Your task to perform on an android device: clear all cookies in the chrome app Image 0: 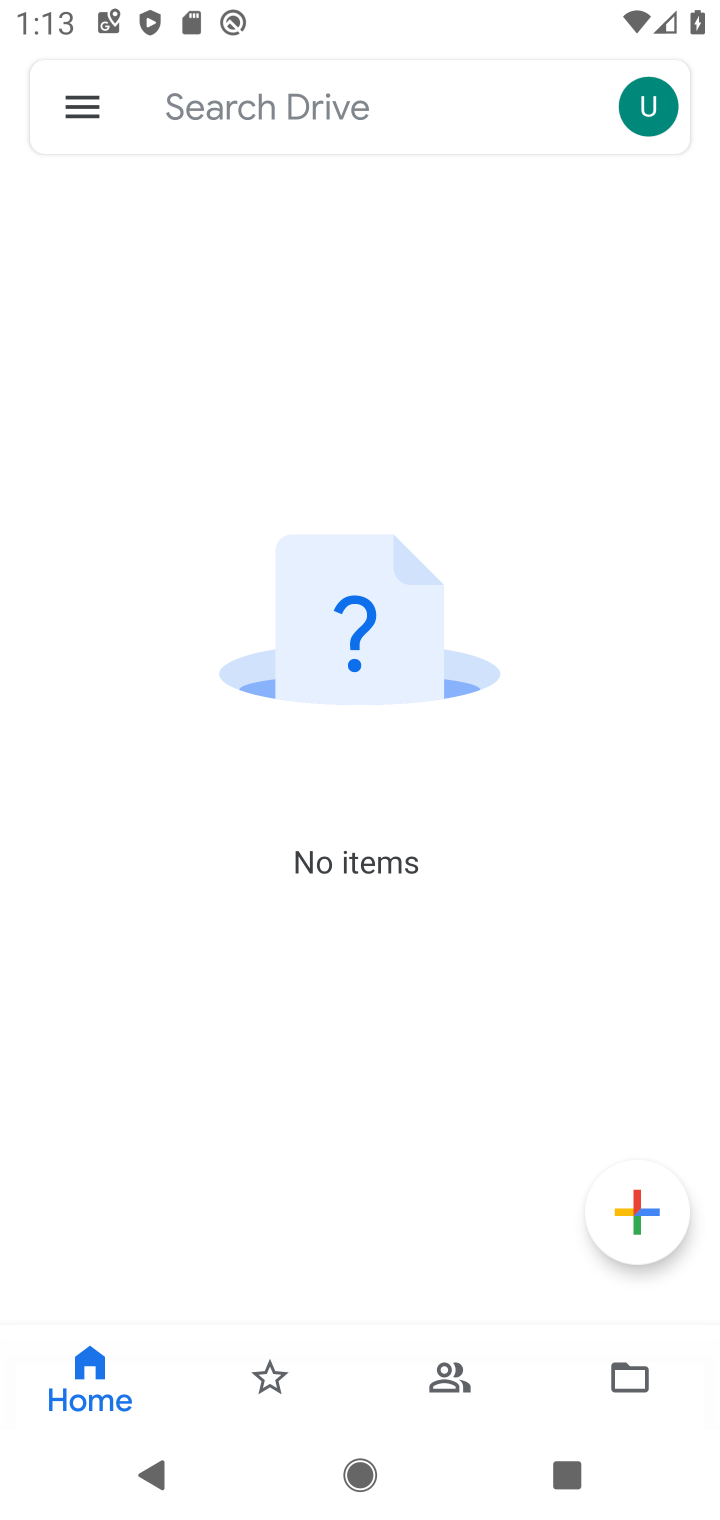
Step 0: press back button
Your task to perform on an android device: clear all cookies in the chrome app Image 1: 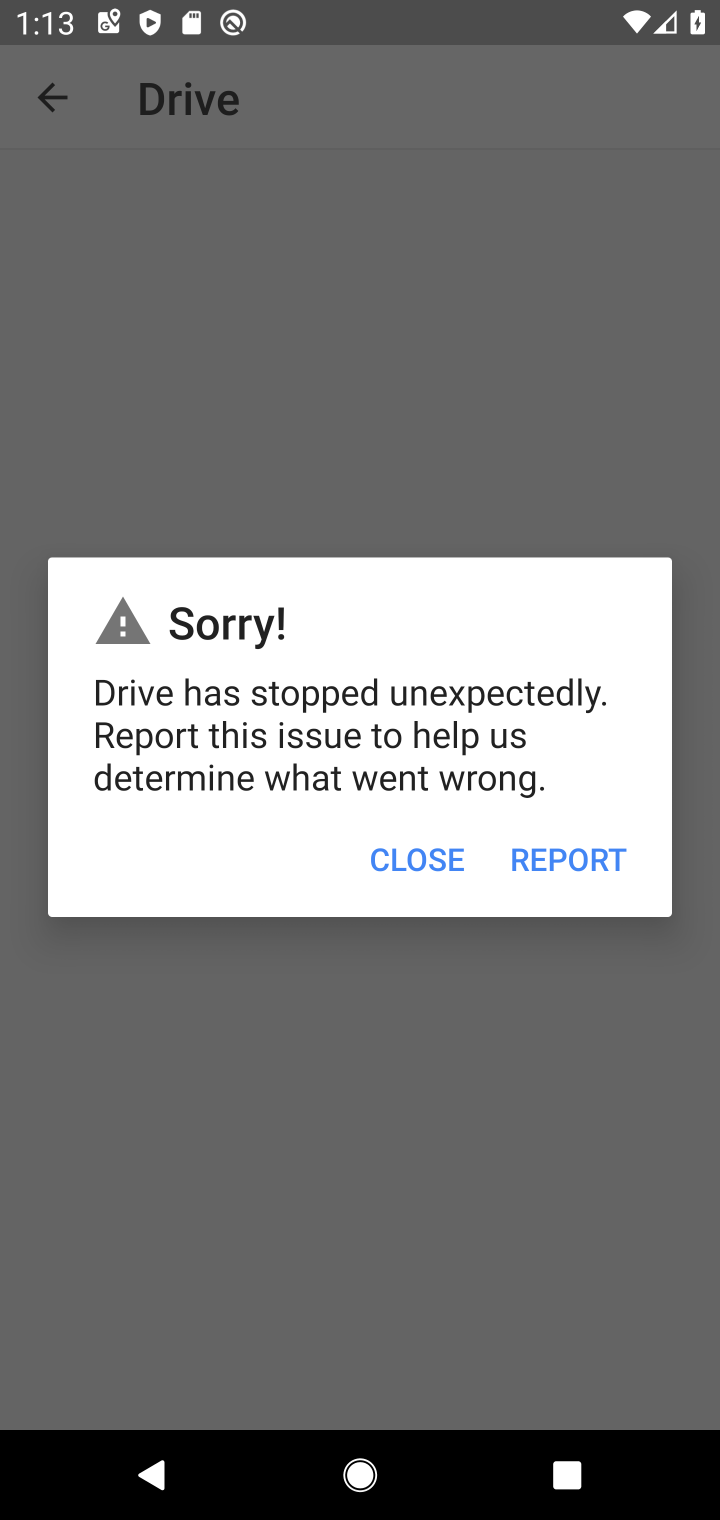
Step 1: click (415, 887)
Your task to perform on an android device: clear all cookies in the chrome app Image 2: 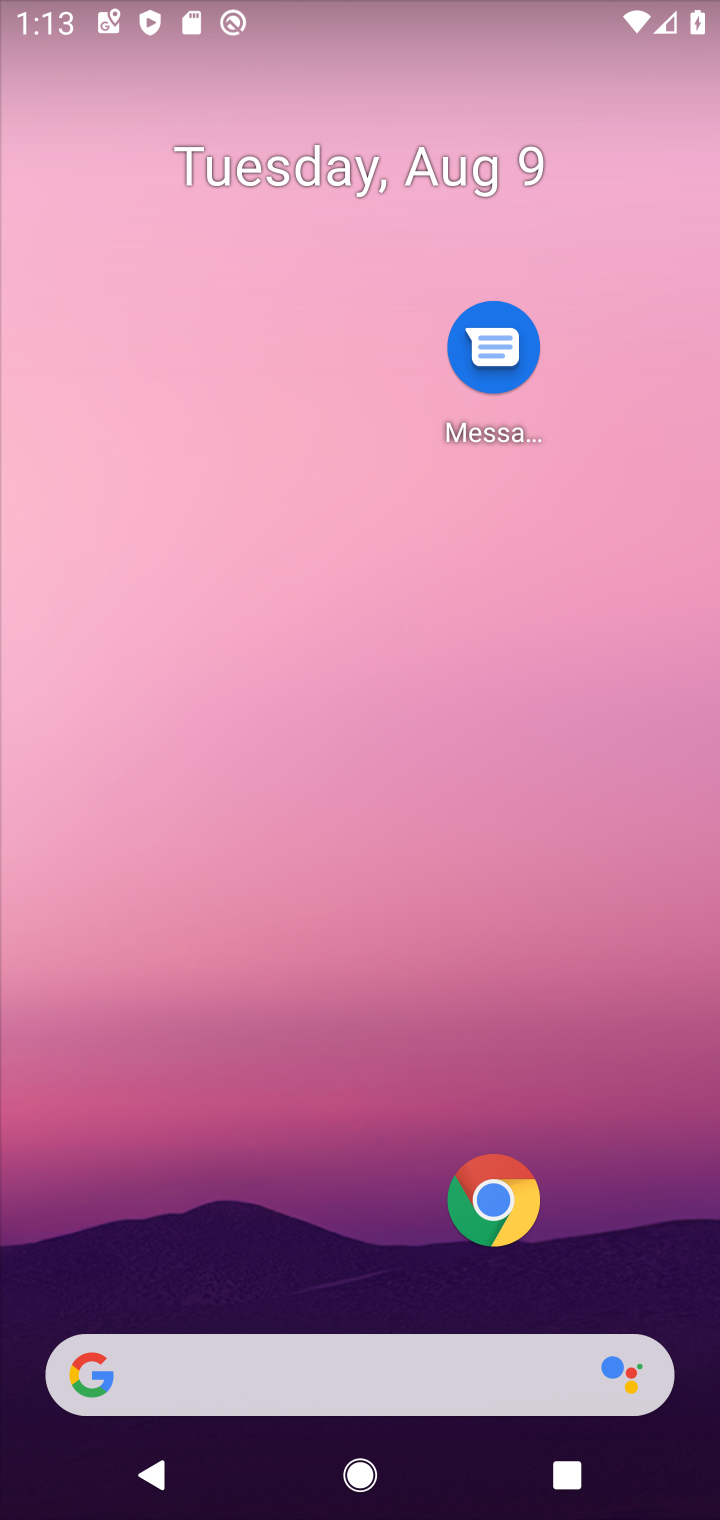
Step 2: click (491, 1211)
Your task to perform on an android device: clear all cookies in the chrome app Image 3: 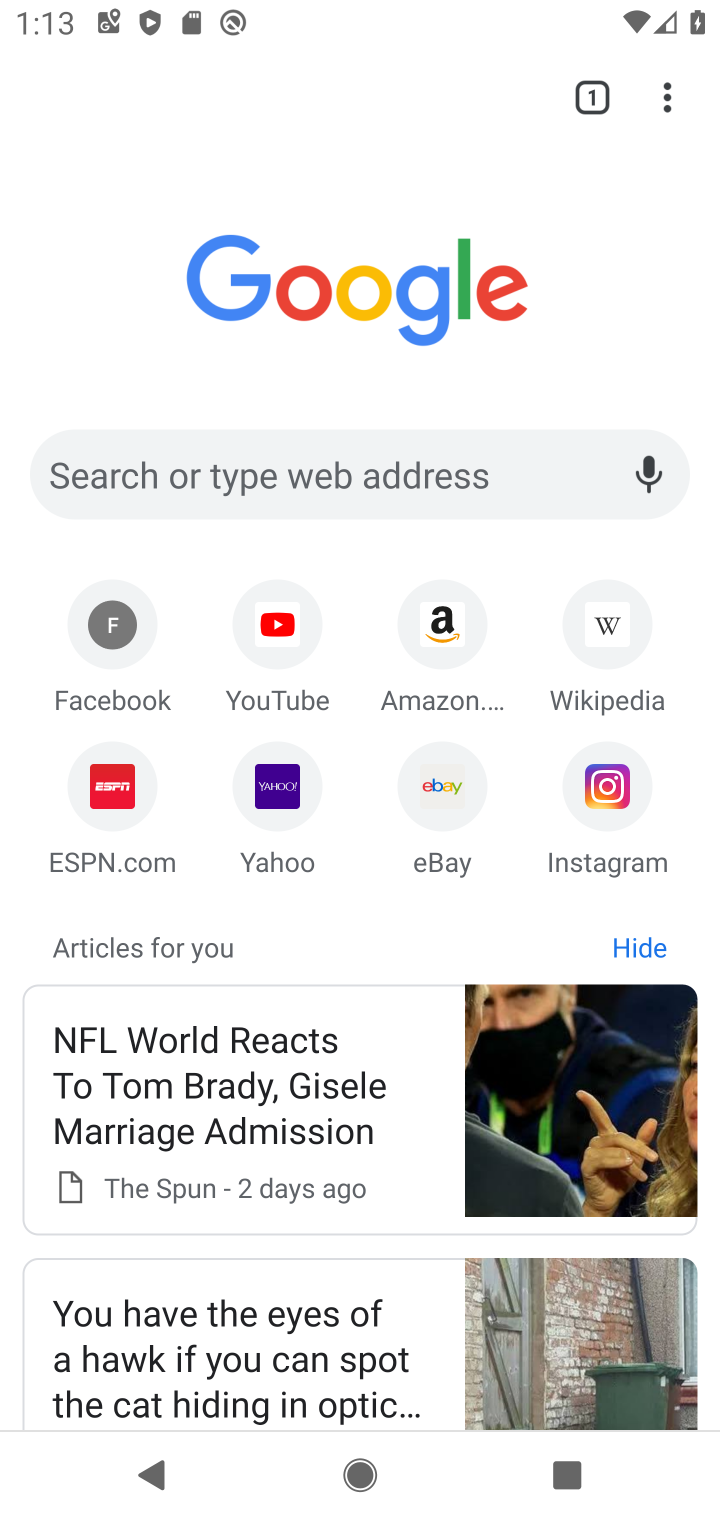
Step 3: drag from (668, 98) to (342, 543)
Your task to perform on an android device: clear all cookies in the chrome app Image 4: 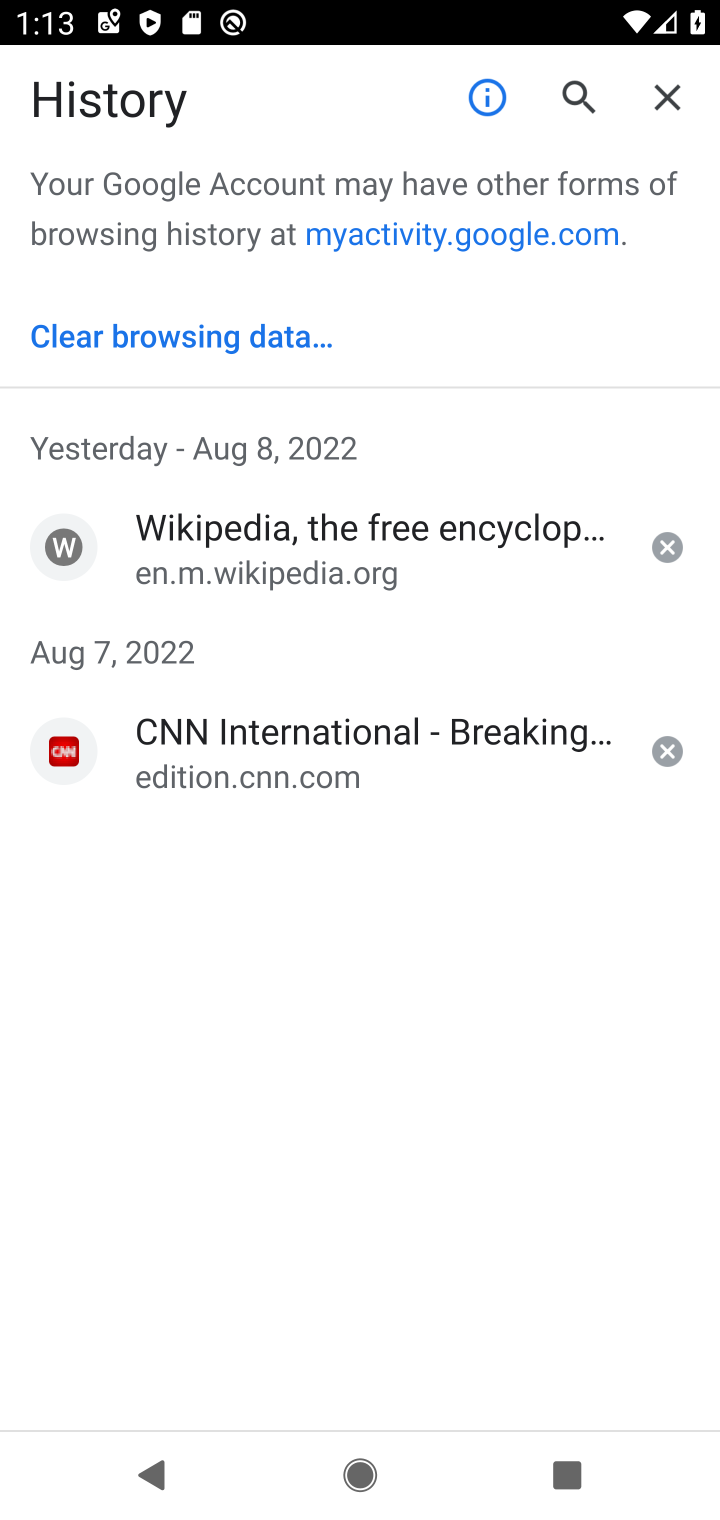
Step 4: click (251, 318)
Your task to perform on an android device: clear all cookies in the chrome app Image 5: 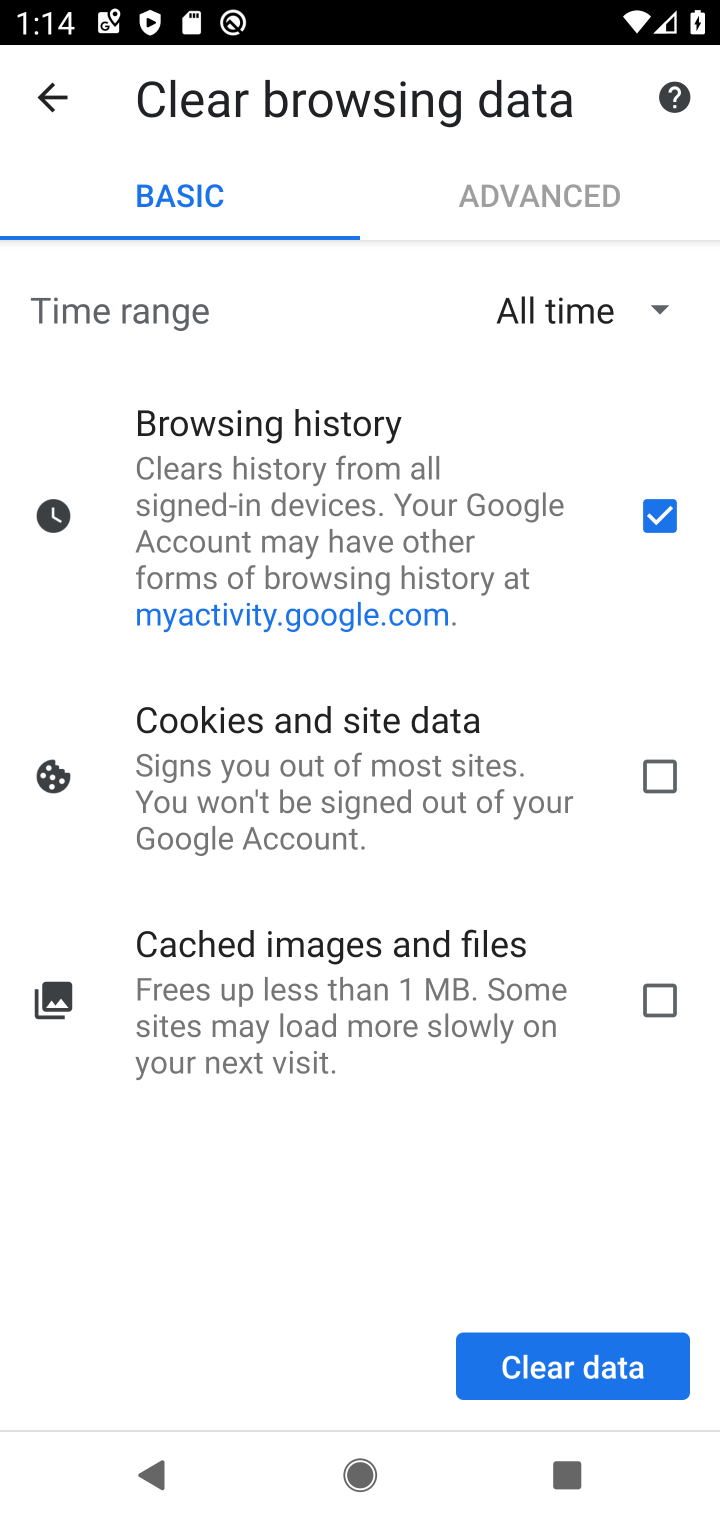
Step 5: click (648, 770)
Your task to perform on an android device: clear all cookies in the chrome app Image 6: 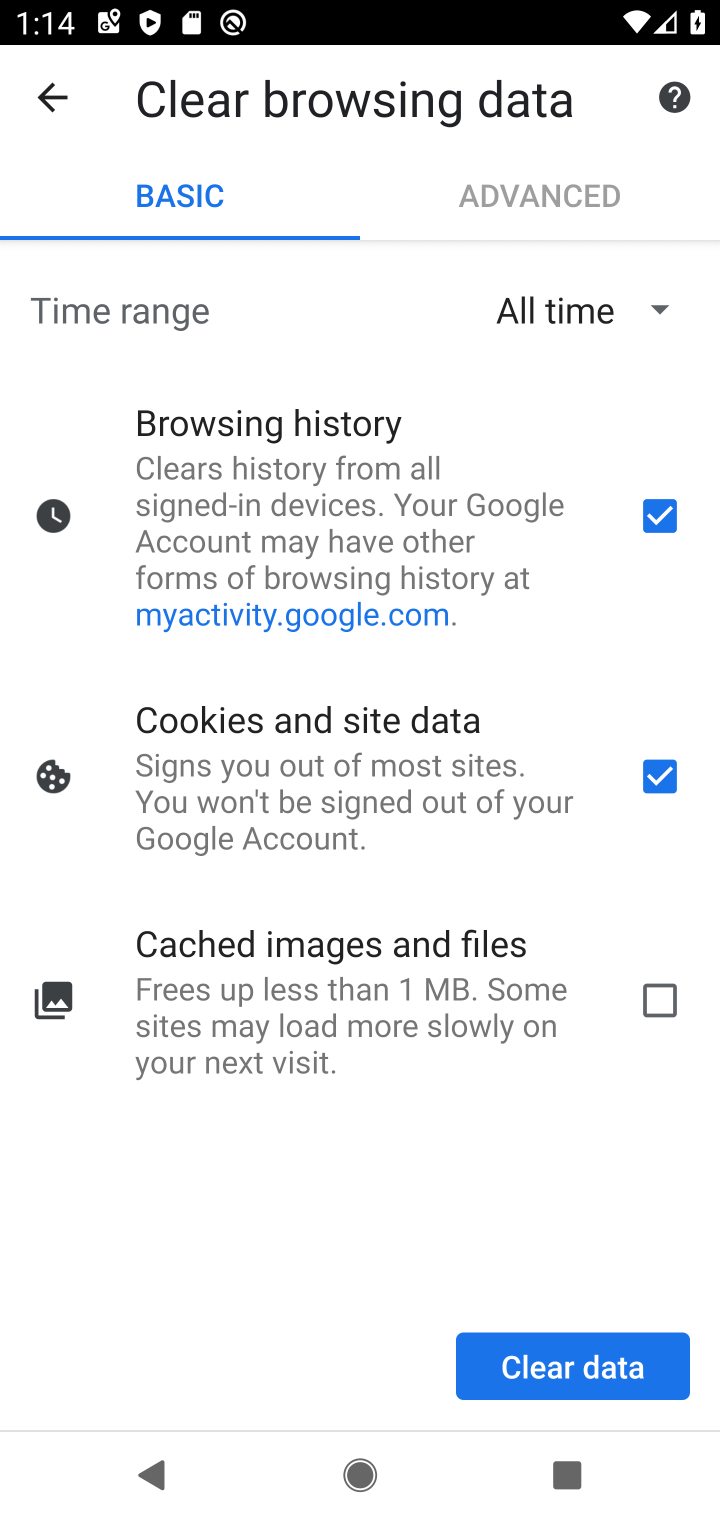
Step 6: click (652, 531)
Your task to perform on an android device: clear all cookies in the chrome app Image 7: 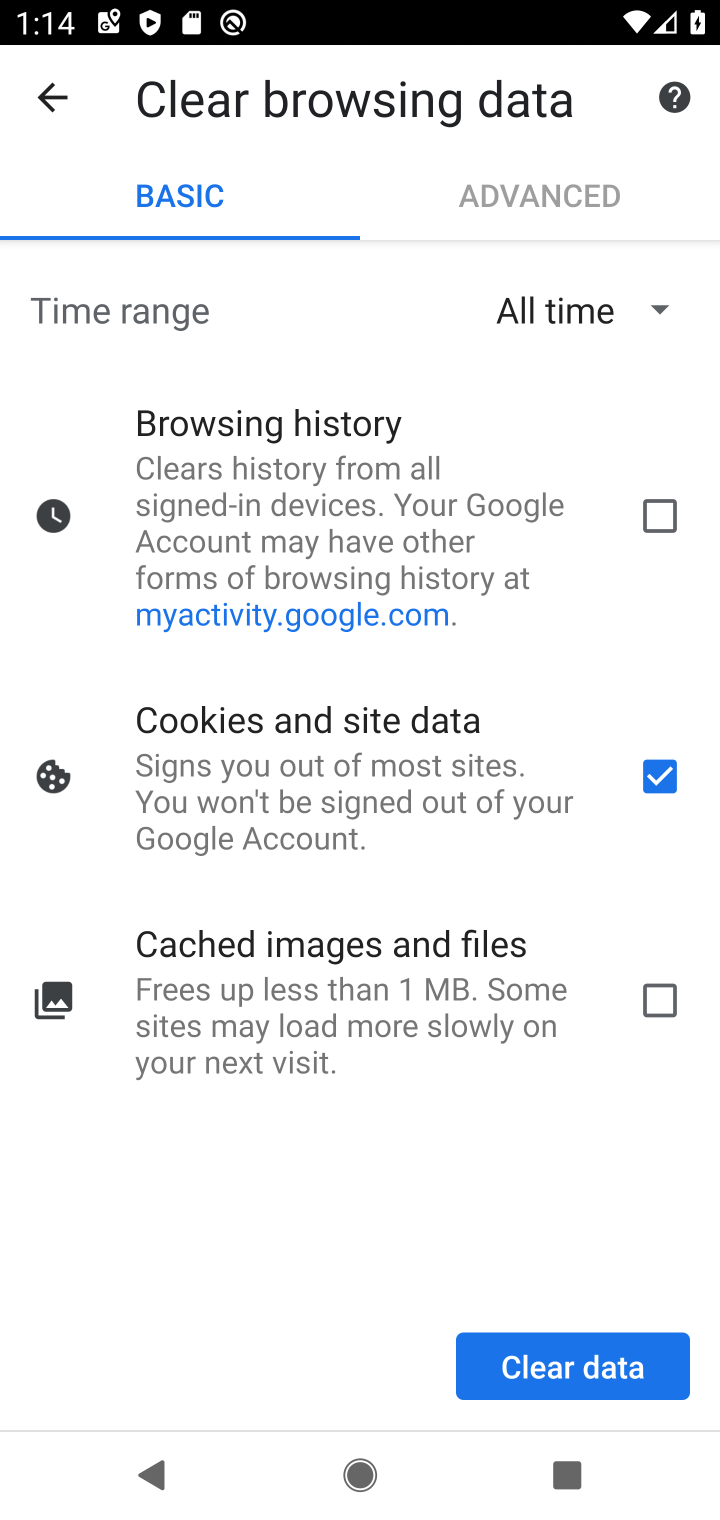
Step 7: click (592, 1366)
Your task to perform on an android device: clear all cookies in the chrome app Image 8: 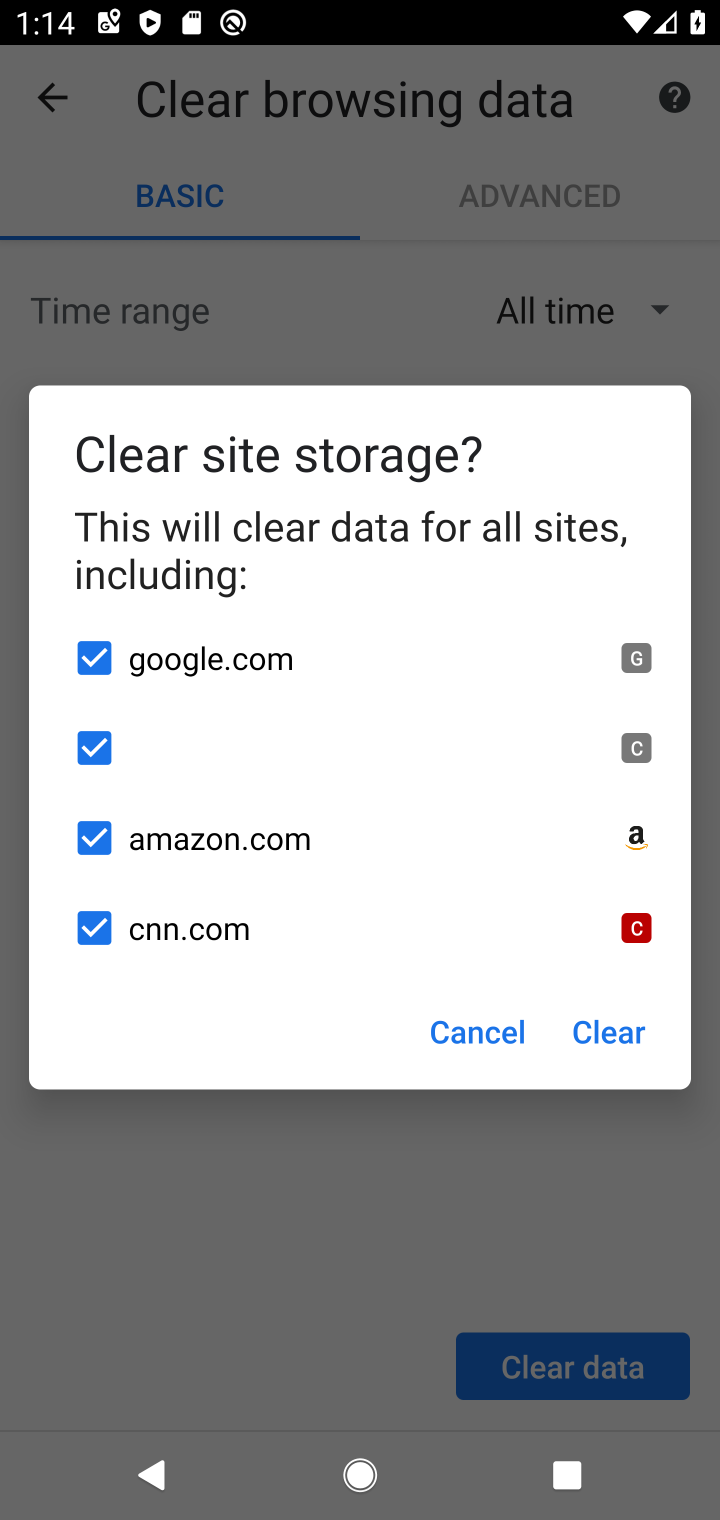
Step 8: click (612, 1023)
Your task to perform on an android device: clear all cookies in the chrome app Image 9: 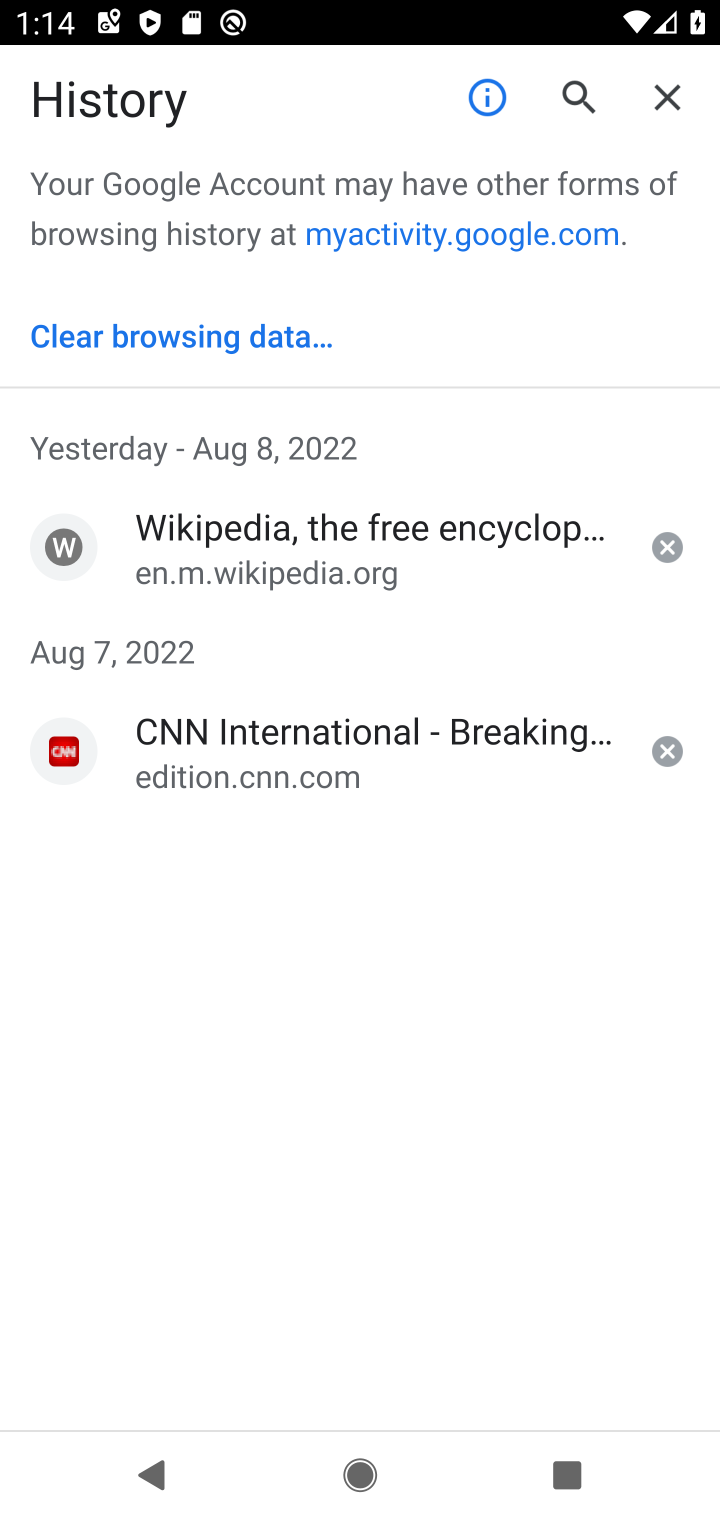
Step 9: task complete